Your task to perform on an android device: Open location settings Image 0: 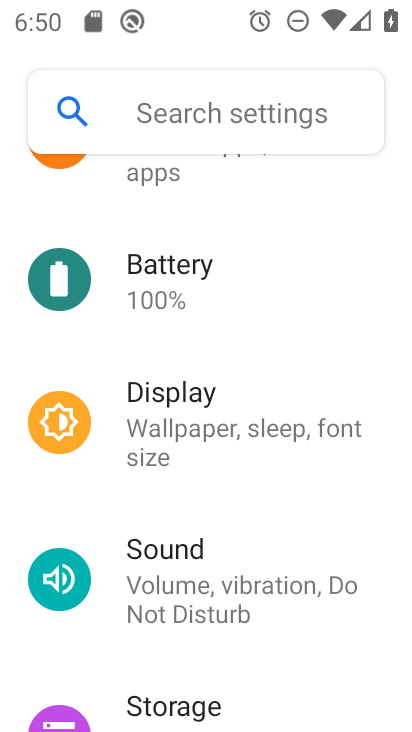
Step 0: press home button
Your task to perform on an android device: Open location settings Image 1: 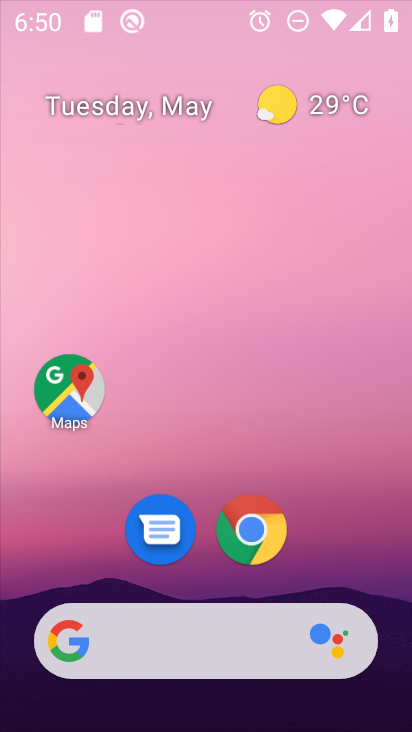
Step 1: drag from (385, 605) to (252, 22)
Your task to perform on an android device: Open location settings Image 2: 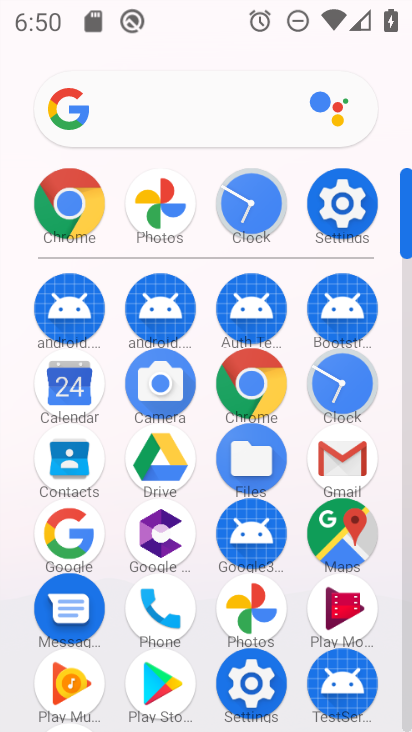
Step 2: click (345, 182)
Your task to perform on an android device: Open location settings Image 3: 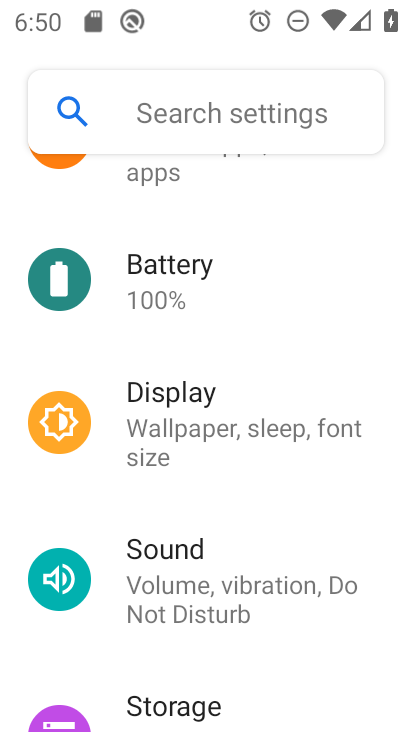
Step 3: drag from (213, 202) to (208, 519)
Your task to perform on an android device: Open location settings Image 4: 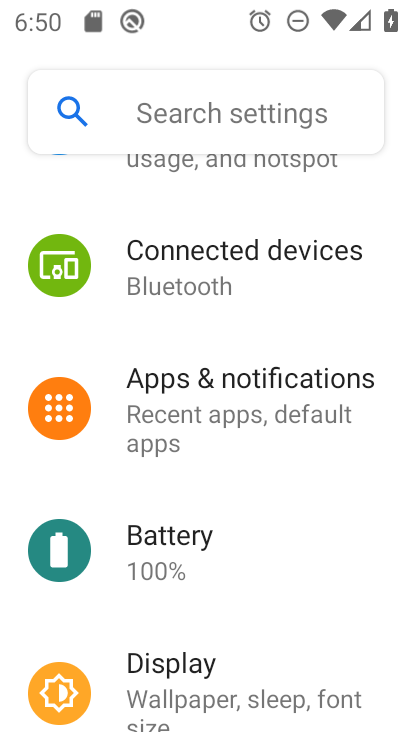
Step 4: drag from (208, 519) to (237, 62)
Your task to perform on an android device: Open location settings Image 5: 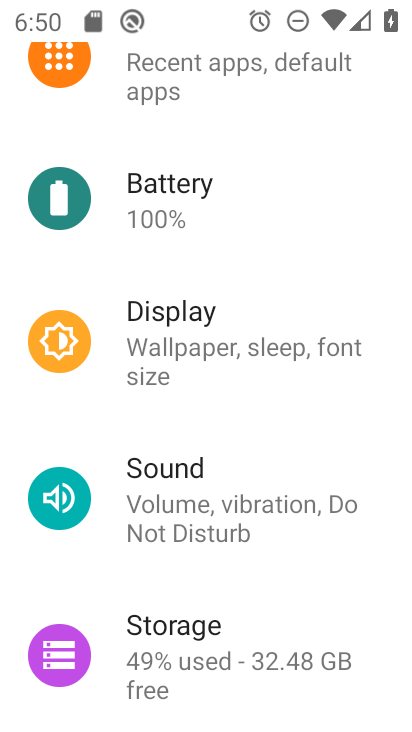
Step 5: drag from (212, 569) to (272, 167)
Your task to perform on an android device: Open location settings Image 6: 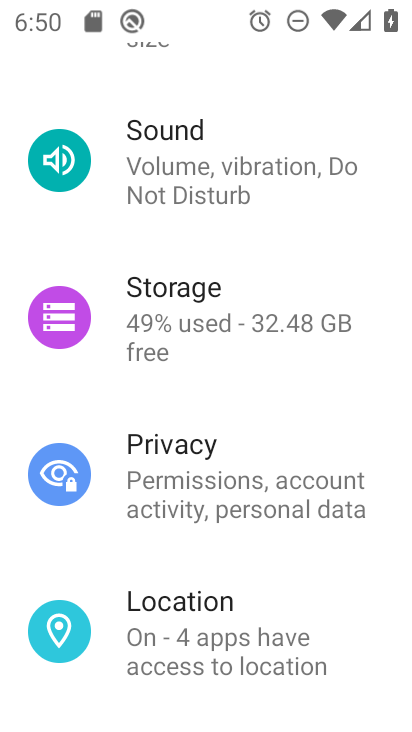
Step 6: click (247, 602)
Your task to perform on an android device: Open location settings Image 7: 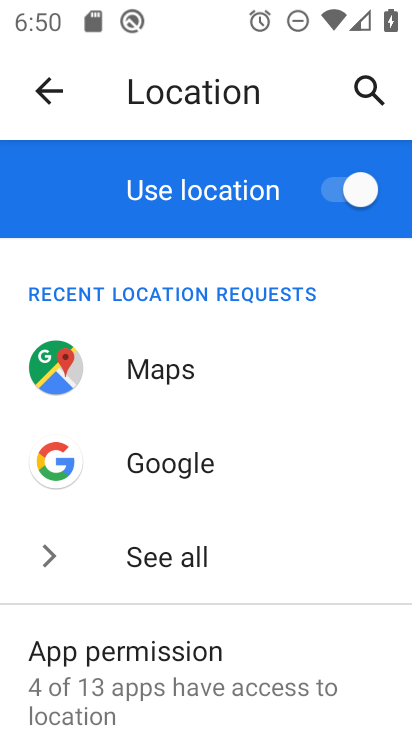
Step 7: task complete